Your task to perform on an android device: visit the assistant section in the google photos Image 0: 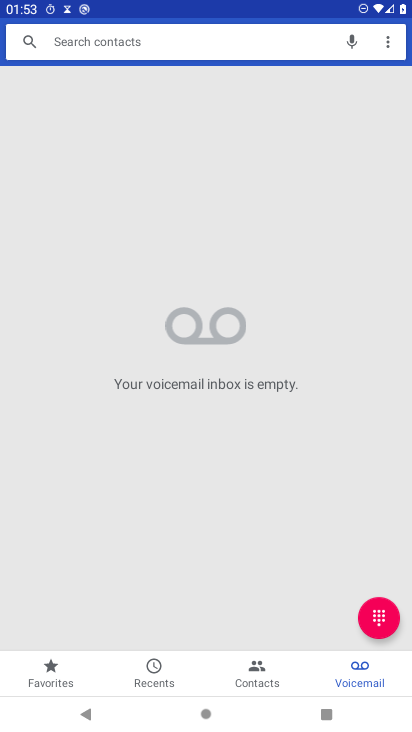
Step 0: press home button
Your task to perform on an android device: visit the assistant section in the google photos Image 1: 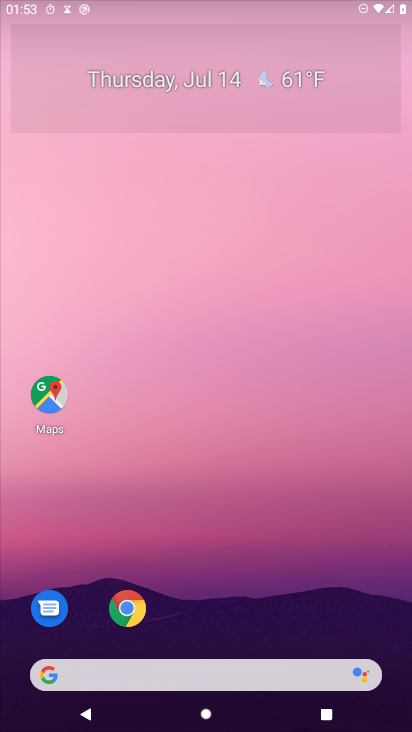
Step 1: drag from (263, 508) to (268, 129)
Your task to perform on an android device: visit the assistant section in the google photos Image 2: 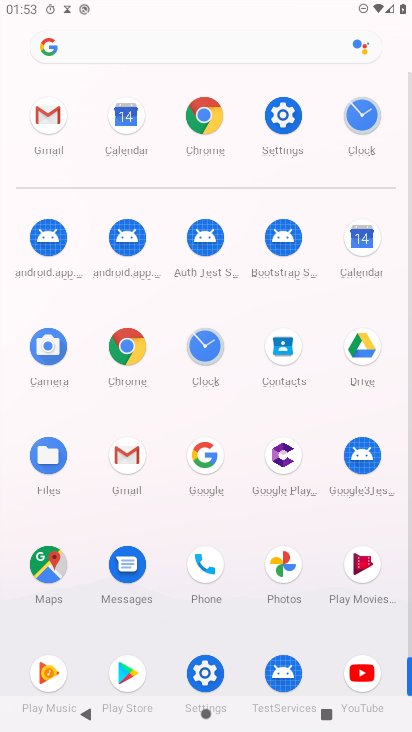
Step 2: click (280, 564)
Your task to perform on an android device: visit the assistant section in the google photos Image 3: 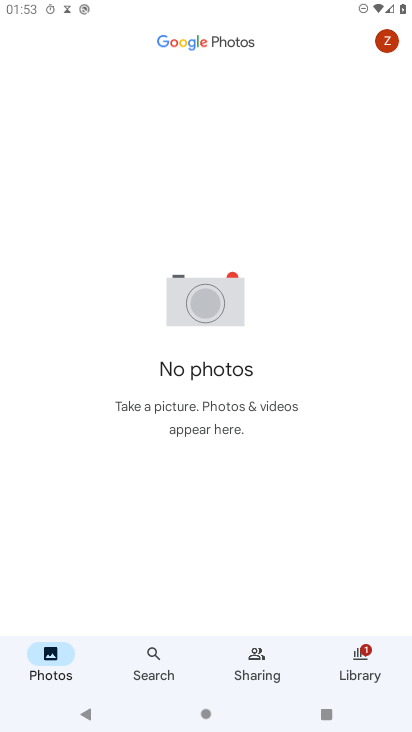
Step 3: task complete